Your task to perform on an android device: Search for vegetarian restaurants on Maps Image 0: 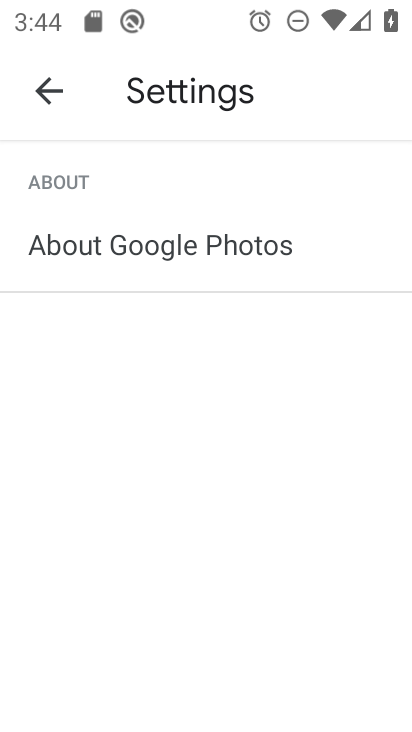
Step 0: press back button
Your task to perform on an android device: Search for vegetarian restaurants on Maps Image 1: 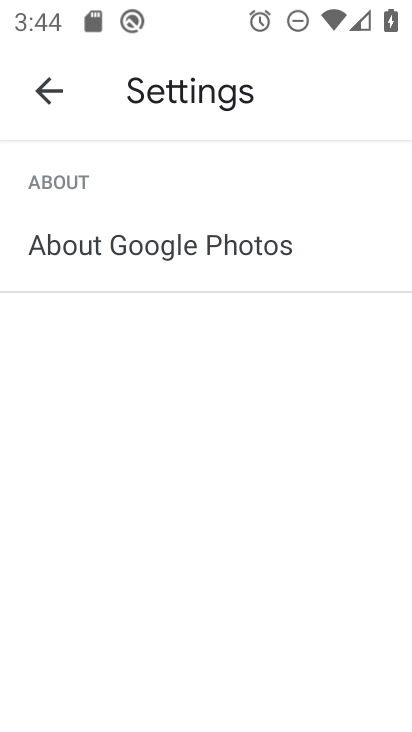
Step 1: press home button
Your task to perform on an android device: Search for vegetarian restaurants on Maps Image 2: 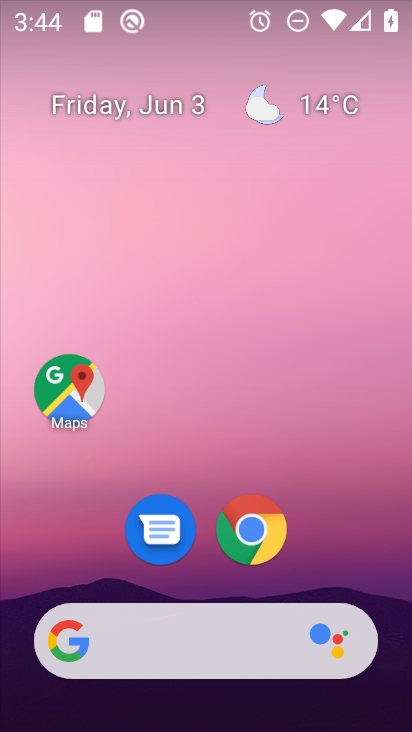
Step 2: drag from (345, 559) to (319, 80)
Your task to perform on an android device: Search for vegetarian restaurants on Maps Image 3: 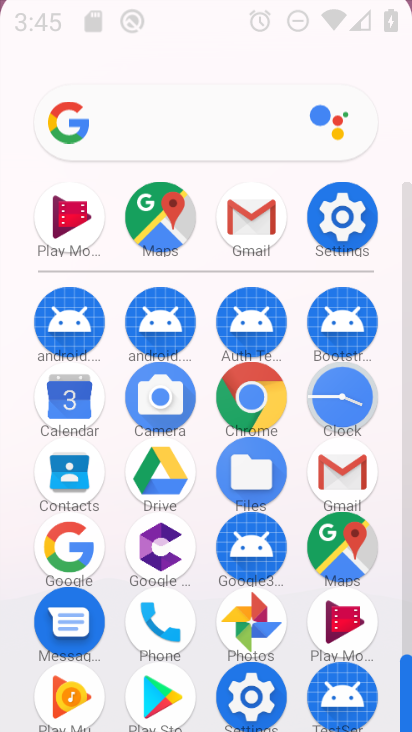
Step 3: click (347, 535)
Your task to perform on an android device: Search for vegetarian restaurants on Maps Image 4: 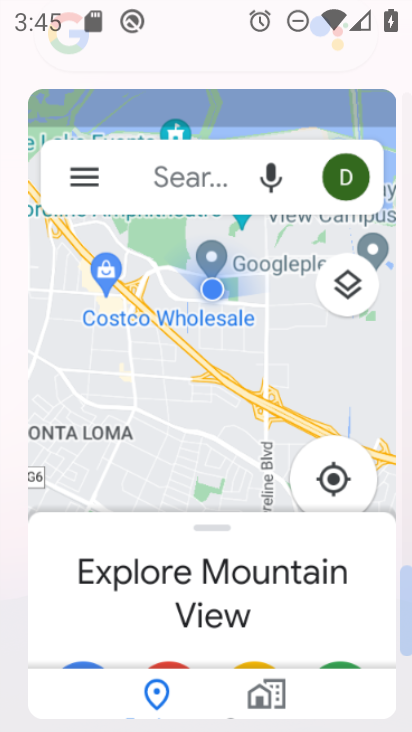
Step 4: click (355, 556)
Your task to perform on an android device: Search for vegetarian restaurants on Maps Image 5: 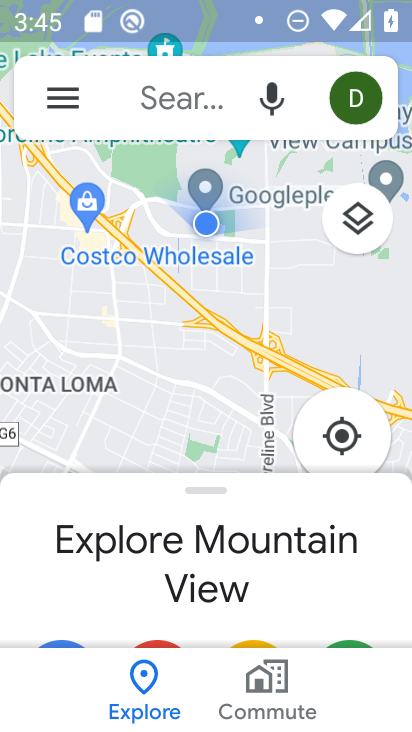
Step 5: click (199, 98)
Your task to perform on an android device: Search for vegetarian restaurants on Maps Image 6: 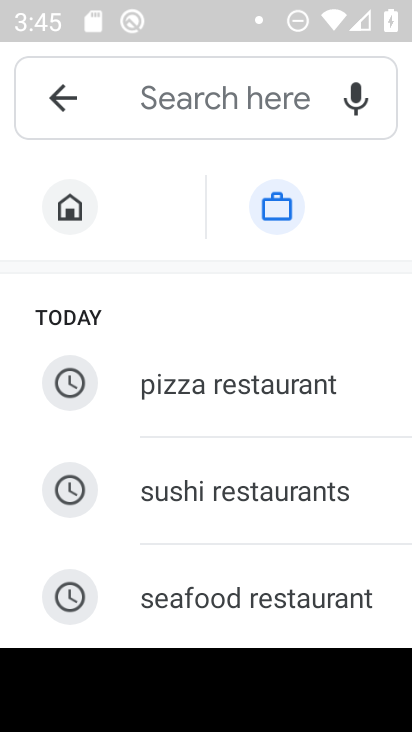
Step 6: type "vegetrain restaurants"
Your task to perform on an android device: Search for vegetarian restaurants on Maps Image 7: 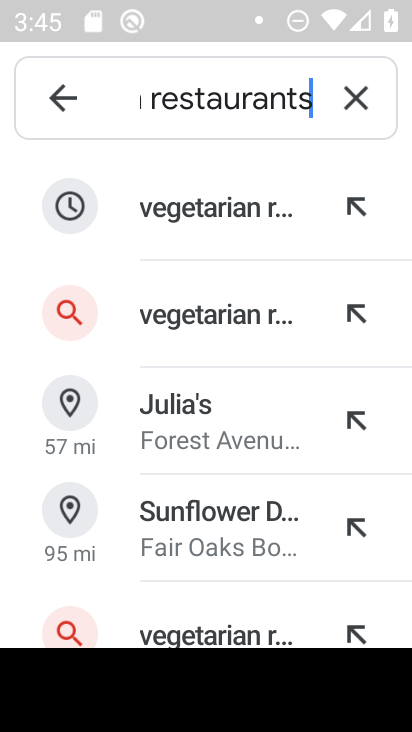
Step 7: click (196, 216)
Your task to perform on an android device: Search for vegetarian restaurants on Maps Image 8: 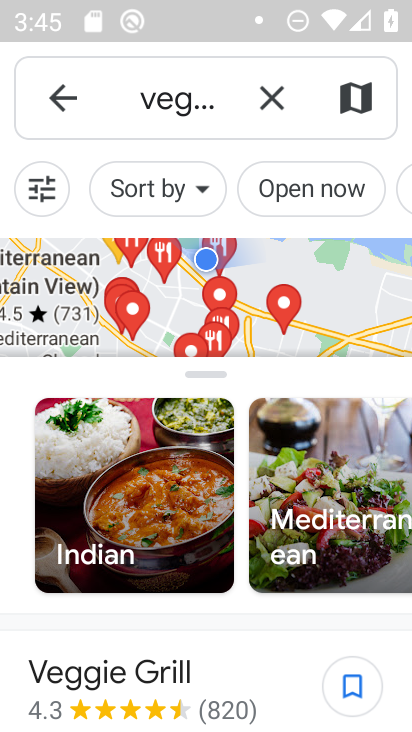
Step 8: task complete